Your task to perform on an android device: Open Yahoo.com Image 0: 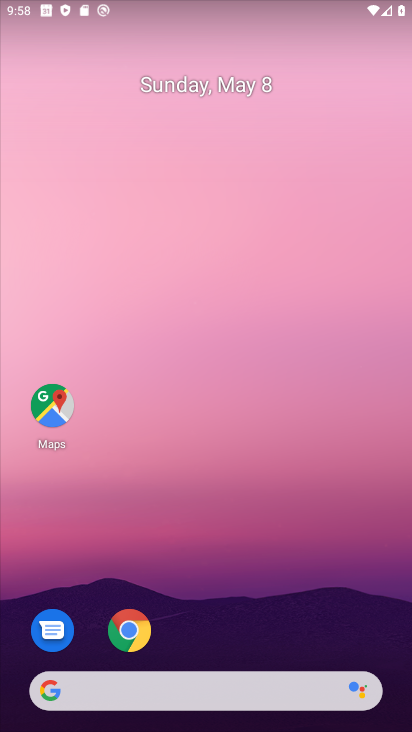
Step 0: click (126, 634)
Your task to perform on an android device: Open Yahoo.com Image 1: 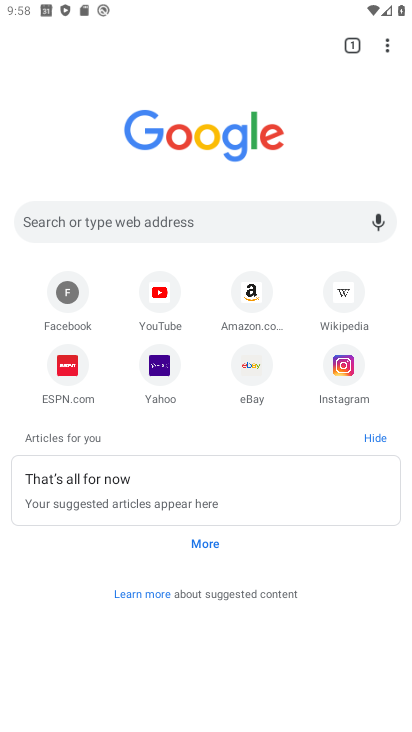
Step 1: click (159, 365)
Your task to perform on an android device: Open Yahoo.com Image 2: 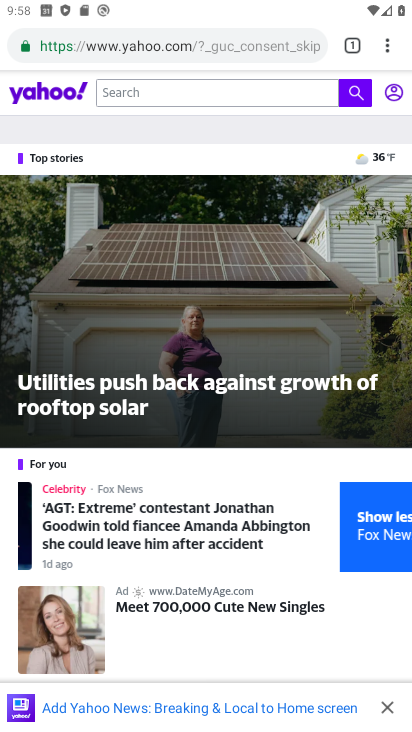
Step 2: task complete